Your task to perform on an android device: Open the phone app and click the voicemail tab. Image 0: 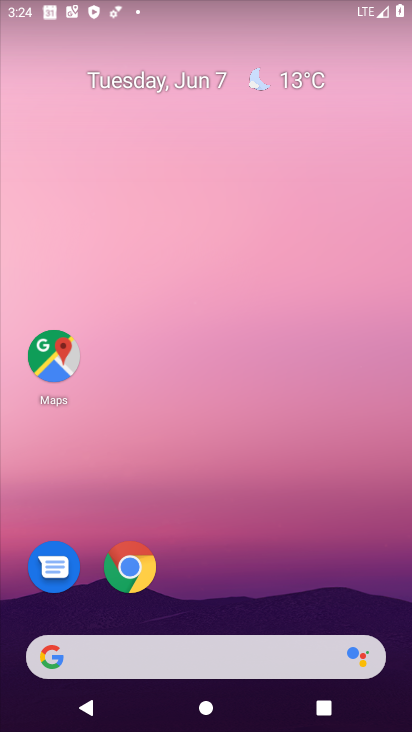
Step 0: drag from (297, 528) to (327, 138)
Your task to perform on an android device: Open the phone app and click the voicemail tab. Image 1: 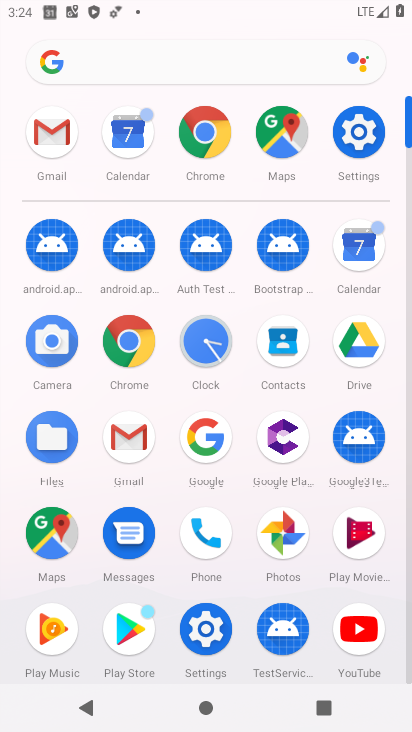
Step 1: click (195, 534)
Your task to perform on an android device: Open the phone app and click the voicemail tab. Image 2: 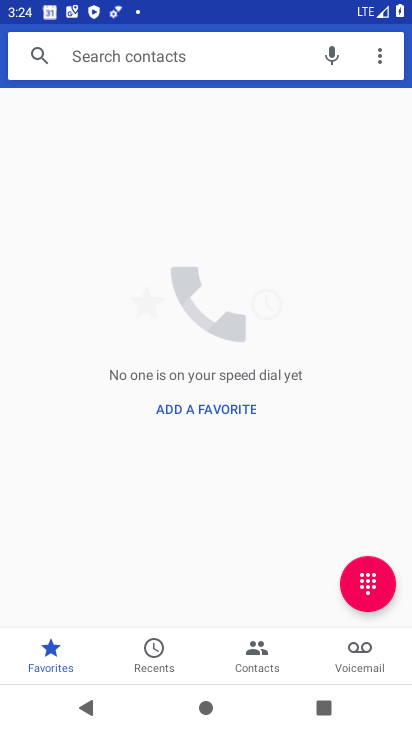
Step 2: click (344, 654)
Your task to perform on an android device: Open the phone app and click the voicemail tab. Image 3: 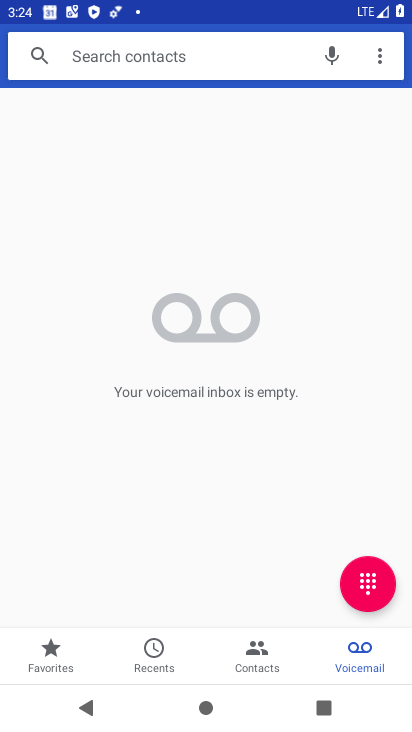
Step 3: task complete